Your task to perform on an android device: Search for Mexican restaurants on Maps Image 0: 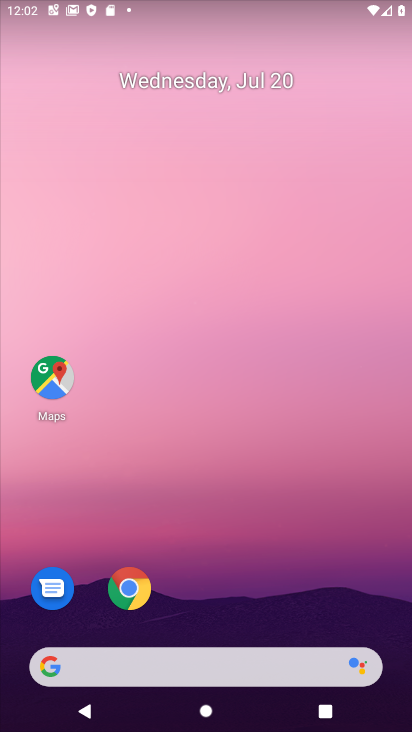
Step 0: click (63, 378)
Your task to perform on an android device: Search for Mexican restaurants on Maps Image 1: 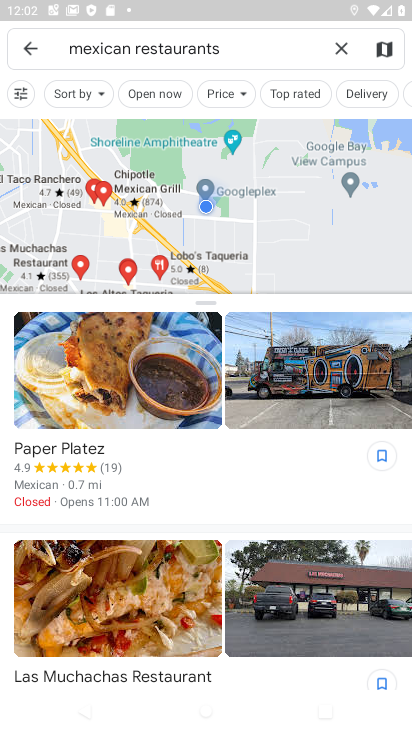
Step 1: task complete